Your task to perform on an android device: turn on the 12-hour format for clock Image 0: 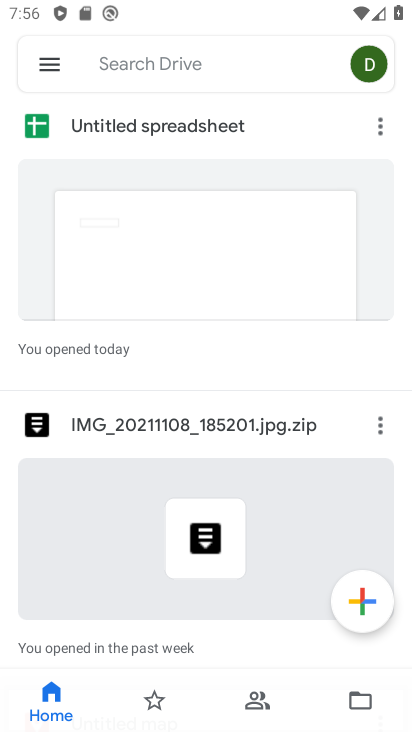
Step 0: press home button
Your task to perform on an android device: turn on the 12-hour format for clock Image 1: 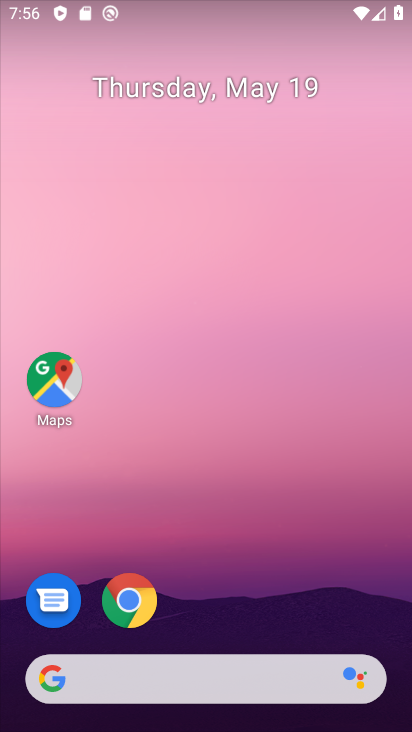
Step 1: drag from (281, 568) to (316, 130)
Your task to perform on an android device: turn on the 12-hour format for clock Image 2: 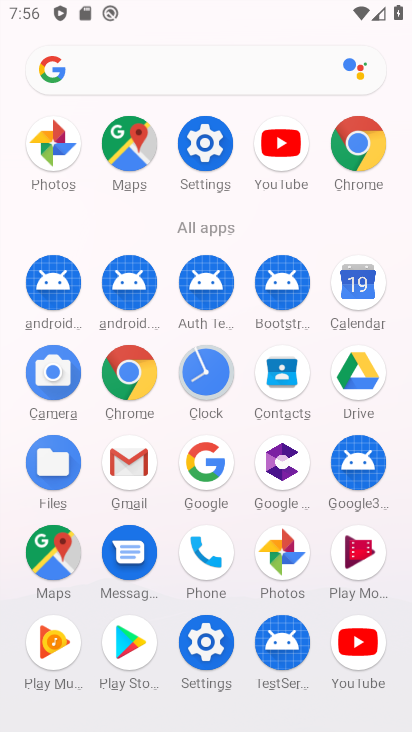
Step 2: click (191, 141)
Your task to perform on an android device: turn on the 12-hour format for clock Image 3: 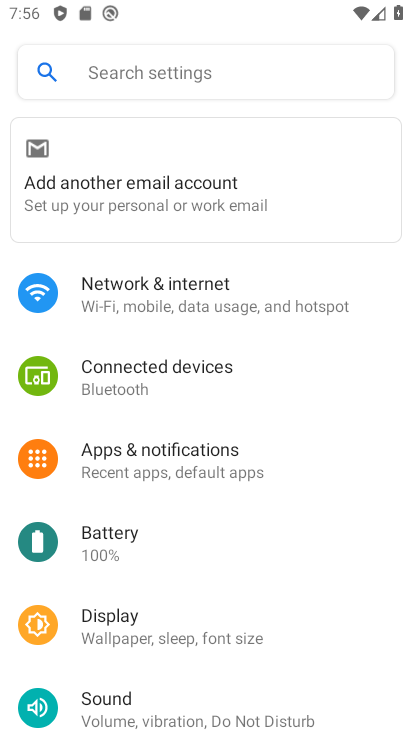
Step 3: press home button
Your task to perform on an android device: turn on the 12-hour format for clock Image 4: 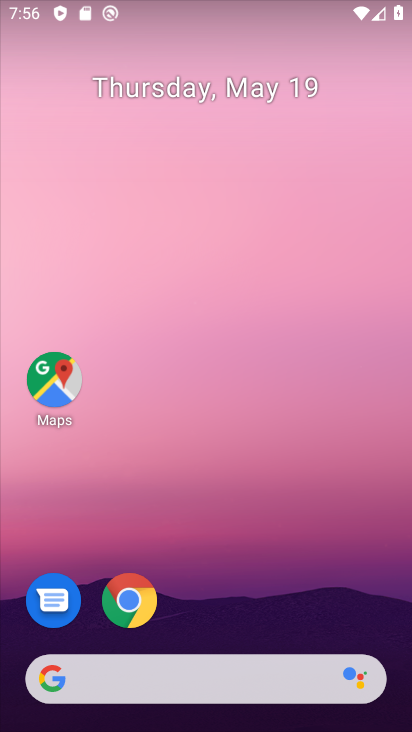
Step 4: drag from (263, 613) to (333, 134)
Your task to perform on an android device: turn on the 12-hour format for clock Image 5: 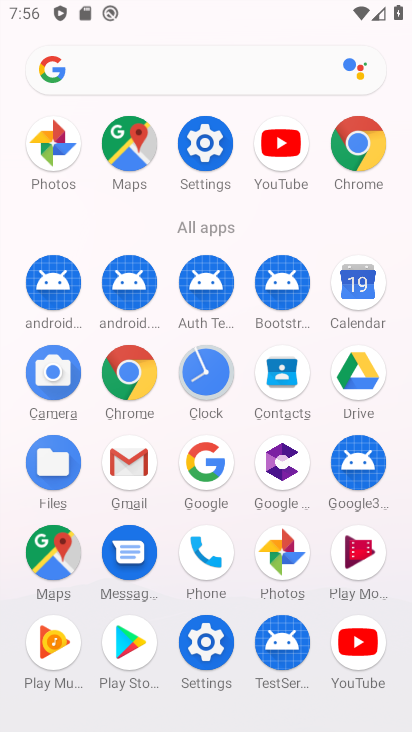
Step 5: click (208, 380)
Your task to perform on an android device: turn on the 12-hour format for clock Image 6: 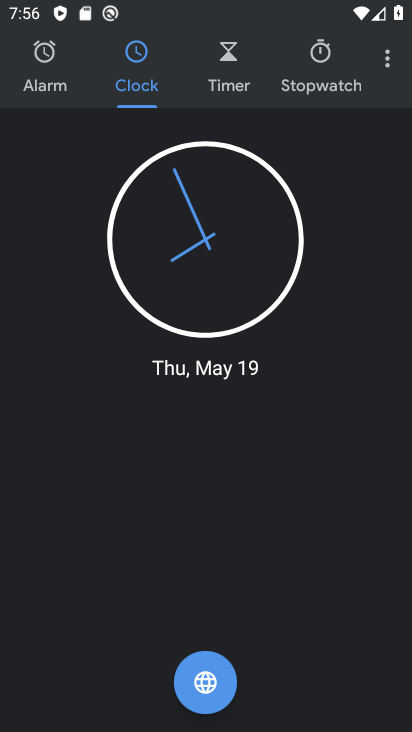
Step 6: click (381, 63)
Your task to perform on an android device: turn on the 12-hour format for clock Image 7: 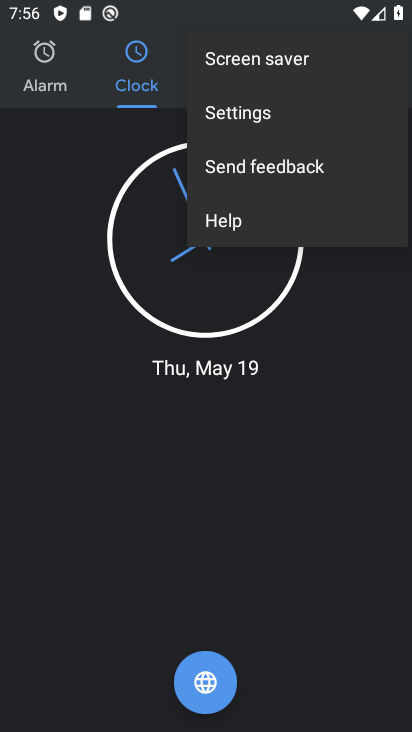
Step 7: click (310, 129)
Your task to perform on an android device: turn on the 12-hour format for clock Image 8: 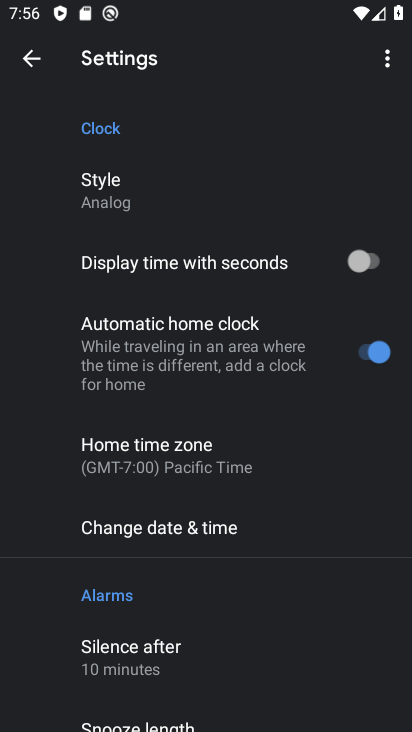
Step 8: click (160, 525)
Your task to perform on an android device: turn on the 12-hour format for clock Image 9: 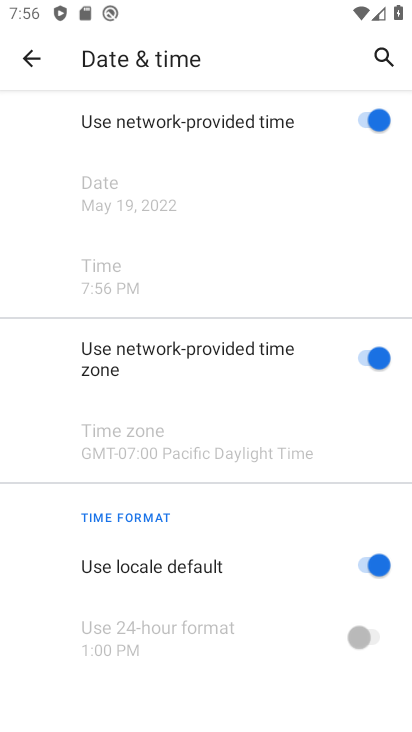
Step 9: task complete